Your task to perform on an android device: Go to internet settings Image 0: 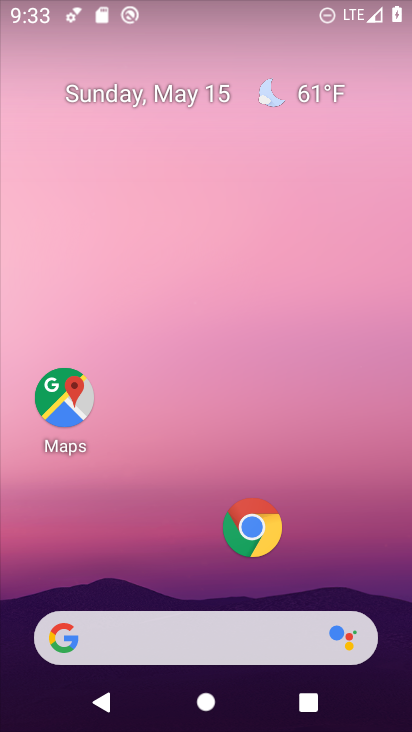
Step 0: drag from (197, 555) to (222, 215)
Your task to perform on an android device: Go to internet settings Image 1: 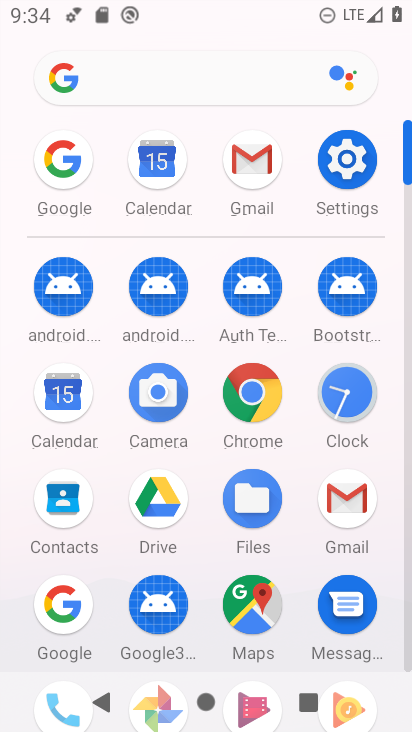
Step 1: click (340, 156)
Your task to perform on an android device: Go to internet settings Image 2: 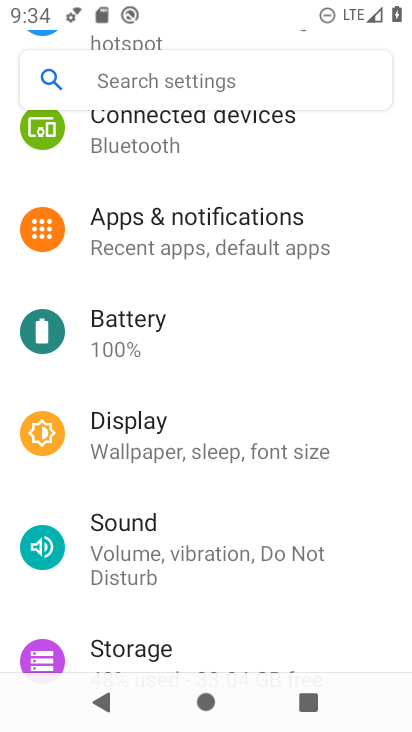
Step 2: drag from (186, 156) to (210, 570)
Your task to perform on an android device: Go to internet settings Image 3: 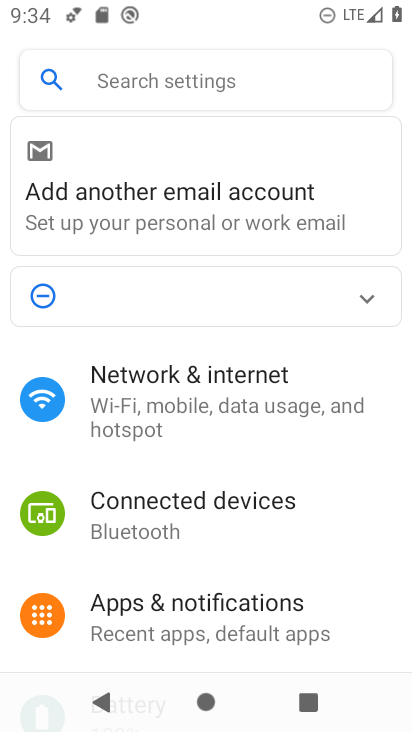
Step 3: click (185, 423)
Your task to perform on an android device: Go to internet settings Image 4: 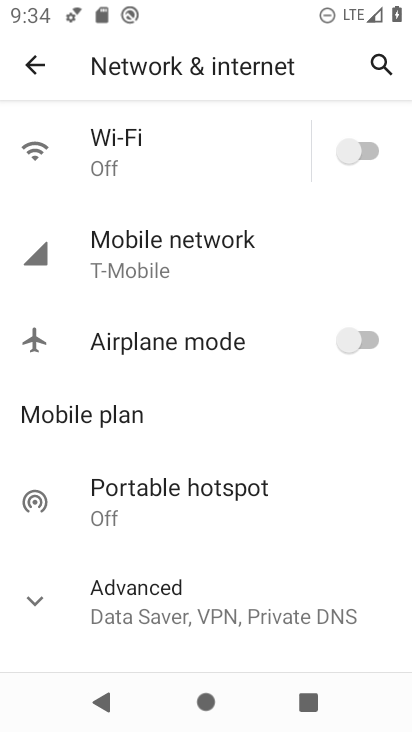
Step 4: click (38, 607)
Your task to perform on an android device: Go to internet settings Image 5: 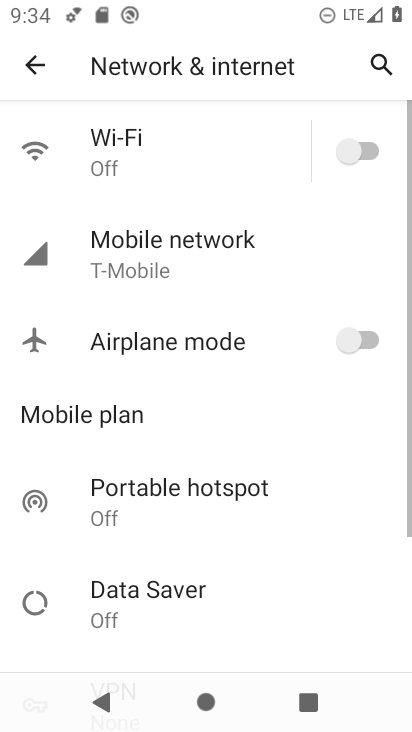
Step 5: task complete